Your task to perform on an android device: Open sound settings Image 0: 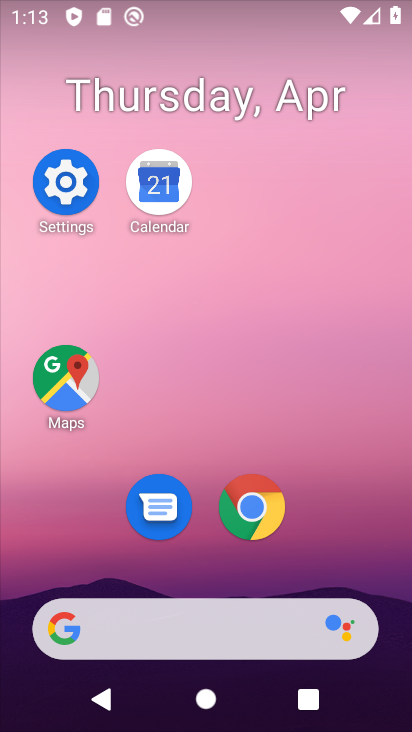
Step 0: click (72, 166)
Your task to perform on an android device: Open sound settings Image 1: 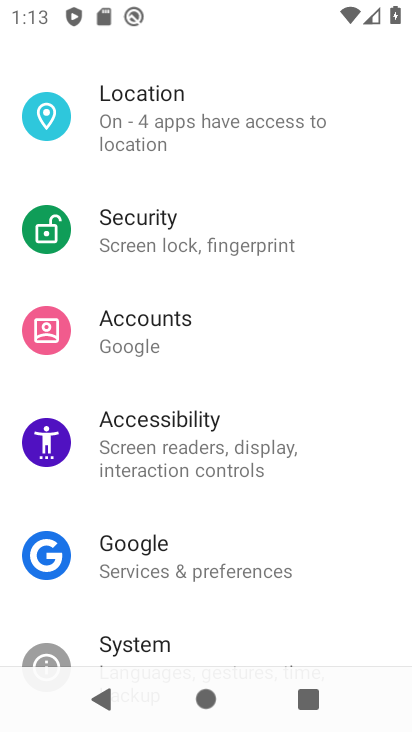
Step 1: drag from (291, 180) to (280, 573)
Your task to perform on an android device: Open sound settings Image 2: 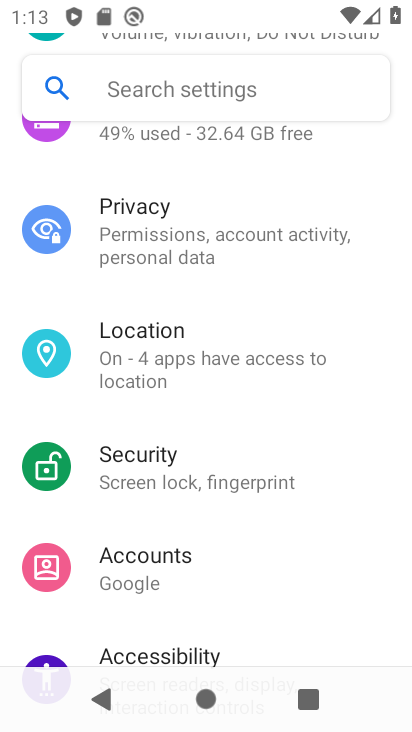
Step 2: drag from (334, 222) to (318, 565)
Your task to perform on an android device: Open sound settings Image 3: 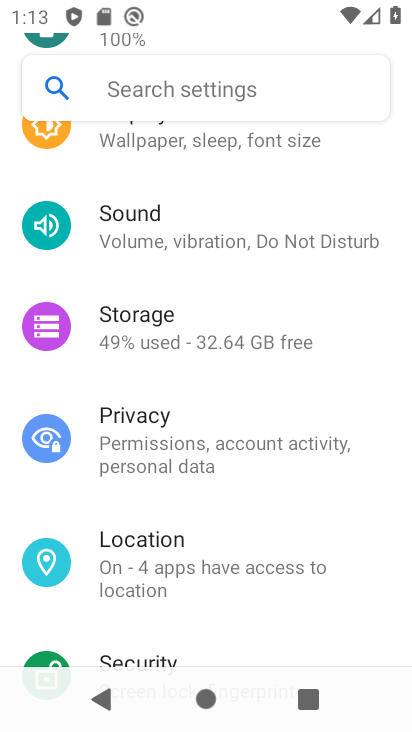
Step 3: click (280, 234)
Your task to perform on an android device: Open sound settings Image 4: 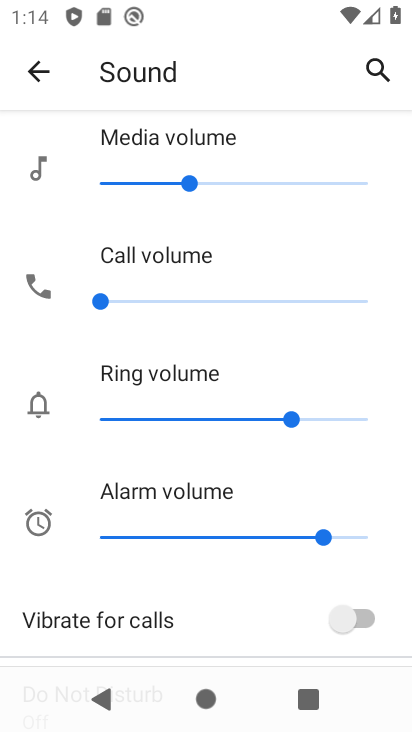
Step 4: task complete